Your task to perform on an android device: Open CNN.com Image 0: 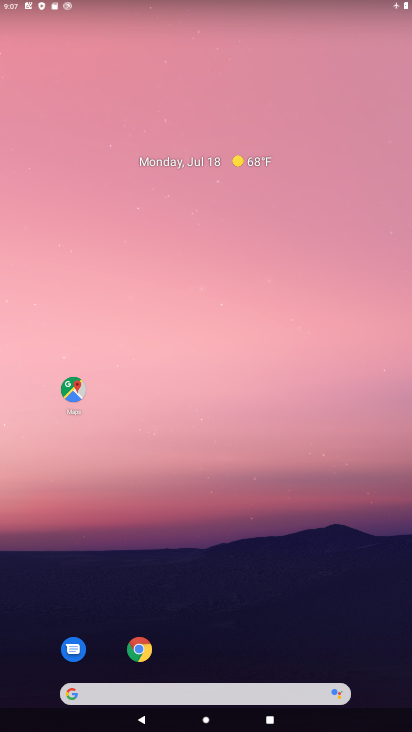
Step 0: click (254, 700)
Your task to perform on an android device: Open CNN.com Image 1: 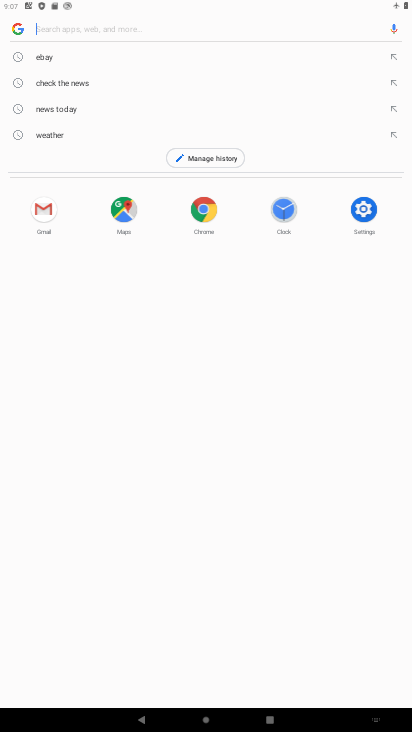
Step 1: type "cnn.com"
Your task to perform on an android device: Open CNN.com Image 2: 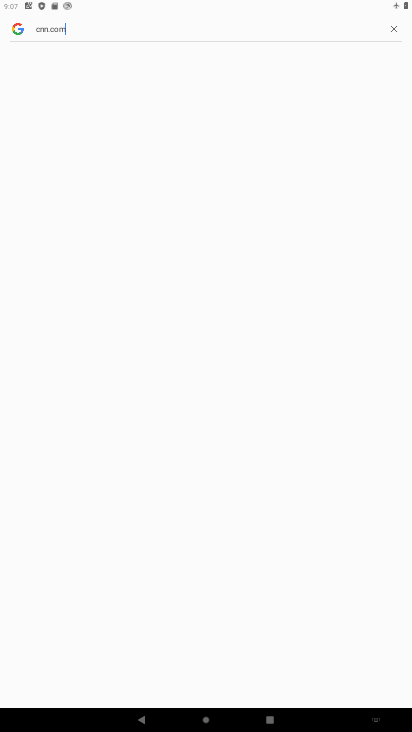
Step 2: press enter
Your task to perform on an android device: Open CNN.com Image 3: 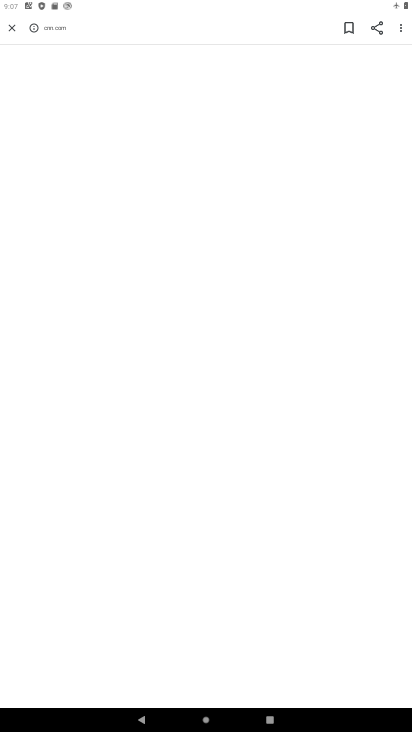
Step 3: task complete